Your task to perform on an android device: open app "ColorNote Notepad Notes" Image 0: 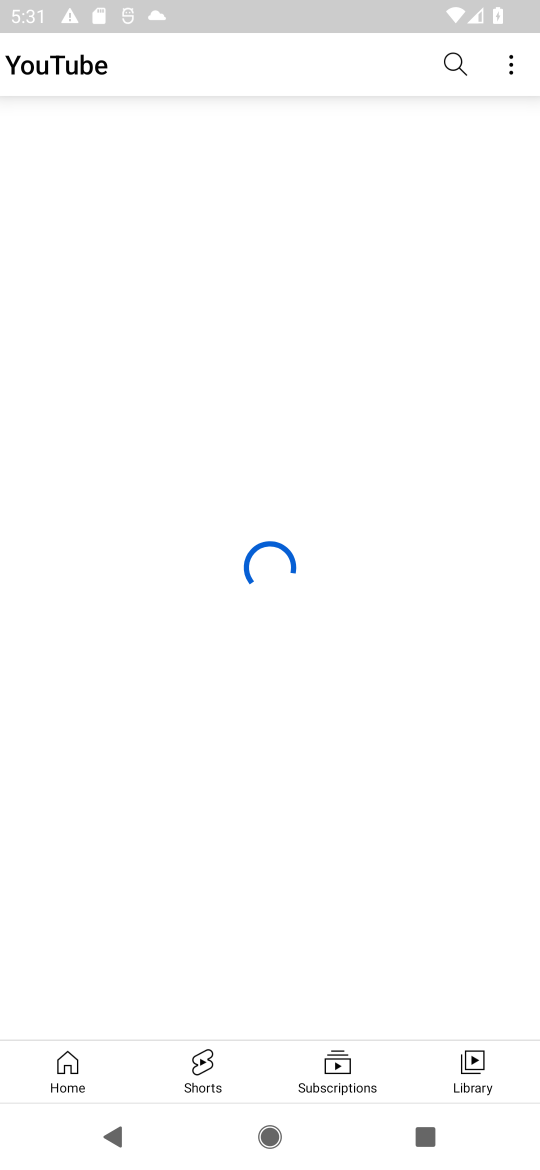
Step 0: press home button
Your task to perform on an android device: open app "ColorNote Notepad Notes" Image 1: 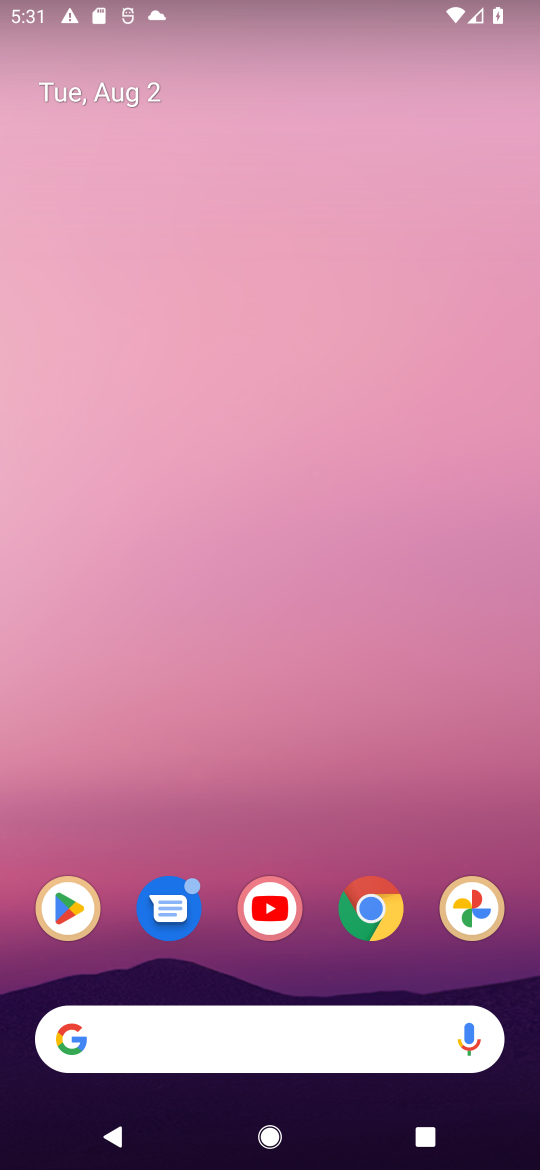
Step 1: click (61, 902)
Your task to perform on an android device: open app "ColorNote Notepad Notes" Image 2: 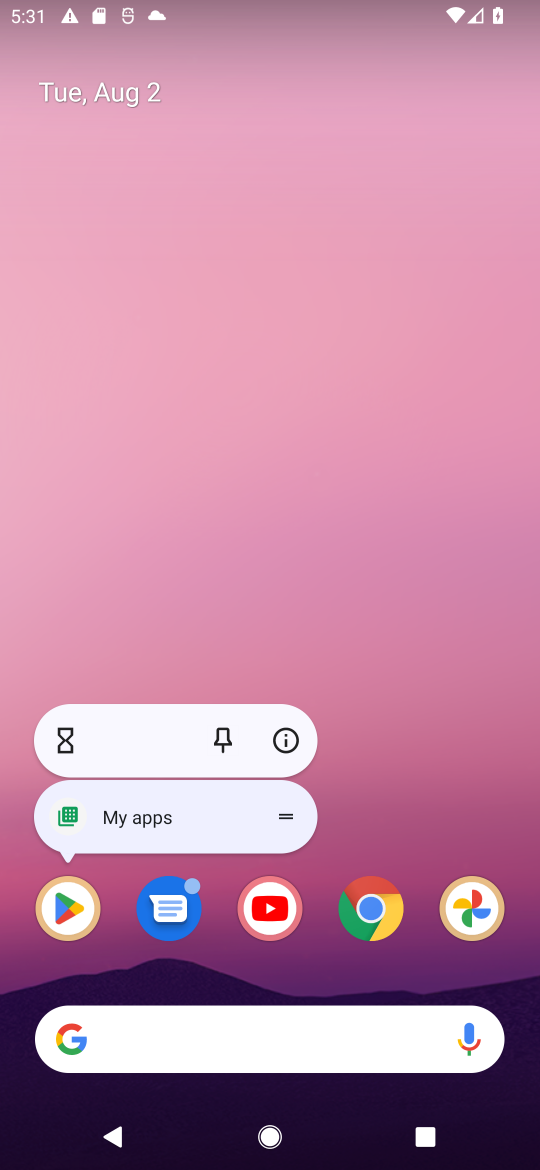
Step 2: click (63, 920)
Your task to perform on an android device: open app "ColorNote Notepad Notes" Image 3: 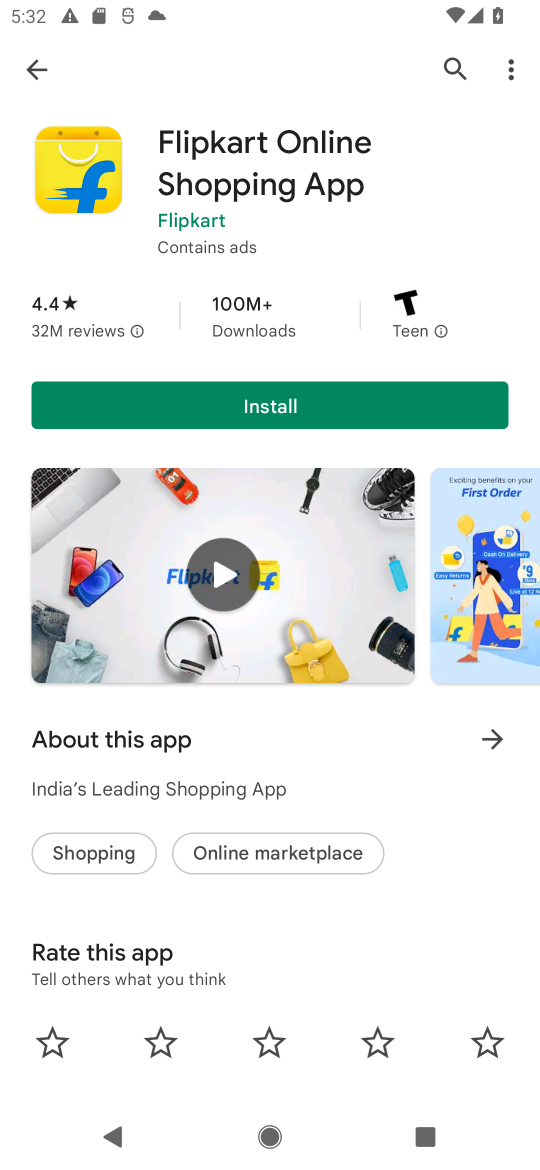
Step 3: click (444, 69)
Your task to perform on an android device: open app "ColorNote Notepad Notes" Image 4: 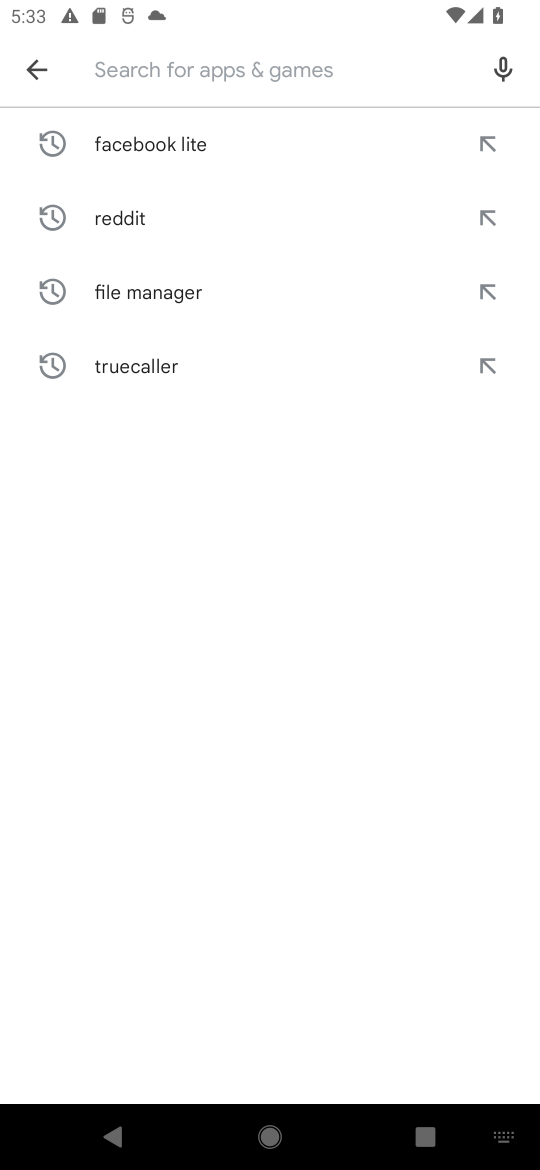
Step 4: type "ColorNote Notepad Notes"
Your task to perform on an android device: open app "ColorNote Notepad Notes" Image 5: 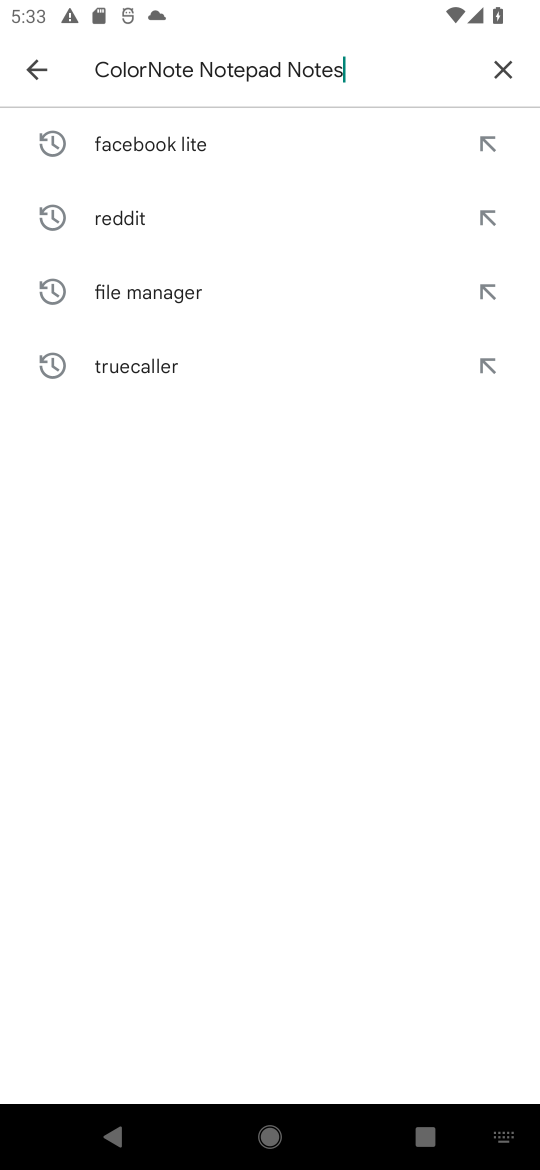
Step 5: type ""
Your task to perform on an android device: open app "ColorNote Notepad Notes" Image 6: 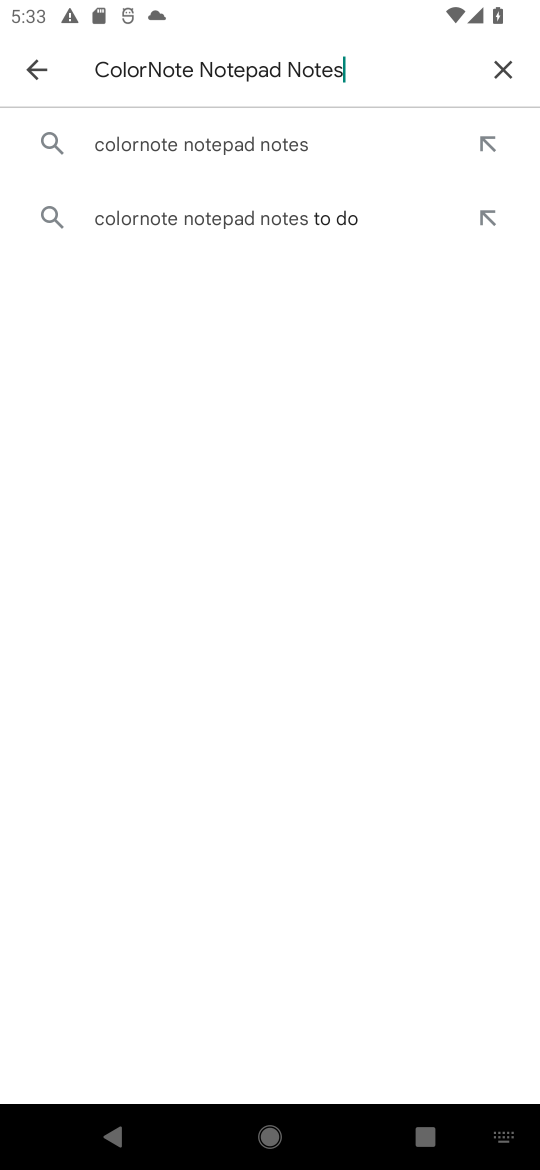
Step 6: click (262, 135)
Your task to perform on an android device: open app "ColorNote Notepad Notes" Image 7: 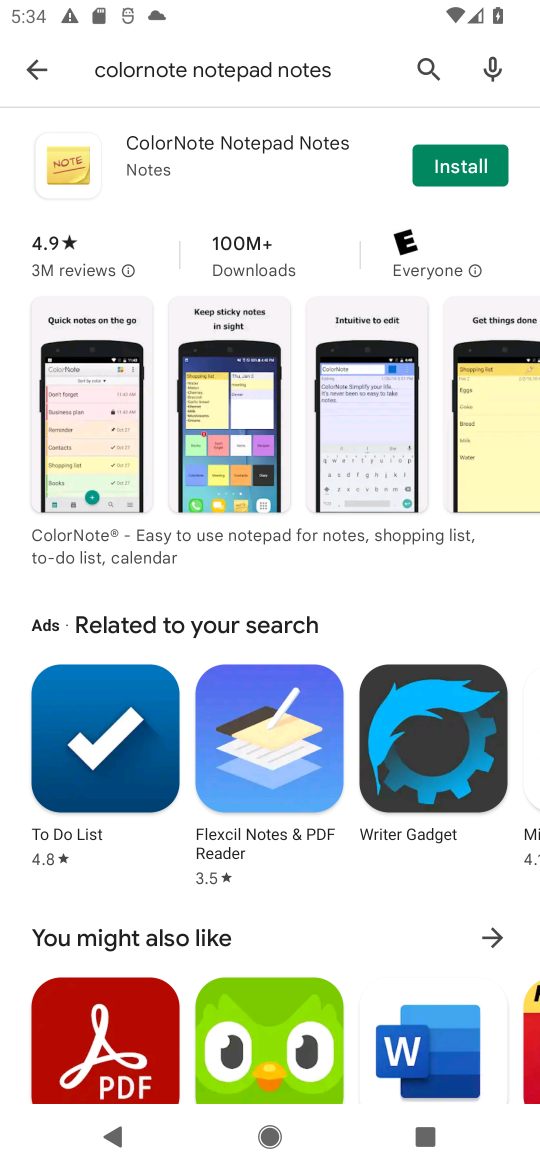
Step 7: task complete